Your task to perform on an android device: Do I have any events today? Image 0: 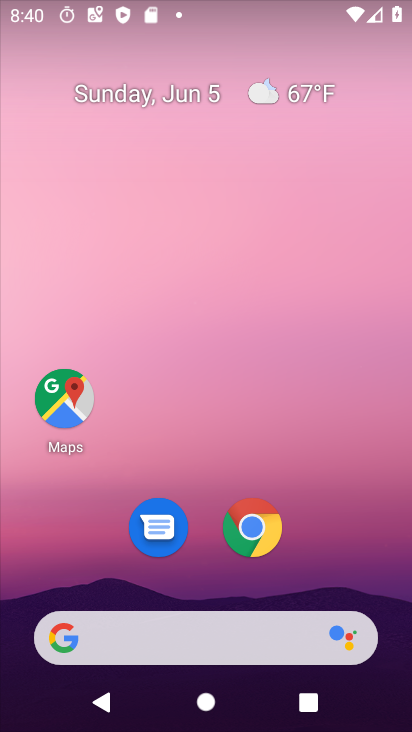
Step 0: drag from (231, 728) to (188, 157)
Your task to perform on an android device: Do I have any events today? Image 1: 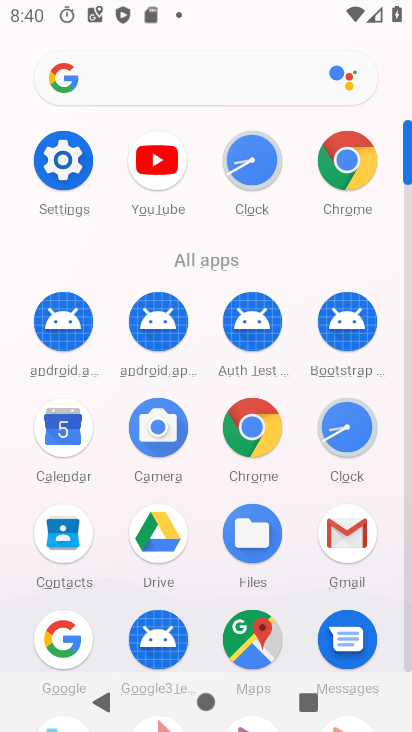
Step 1: click (54, 429)
Your task to perform on an android device: Do I have any events today? Image 2: 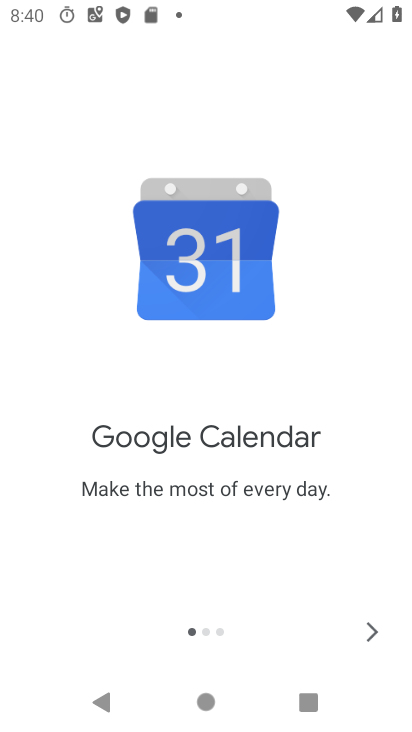
Step 2: click (377, 627)
Your task to perform on an android device: Do I have any events today? Image 3: 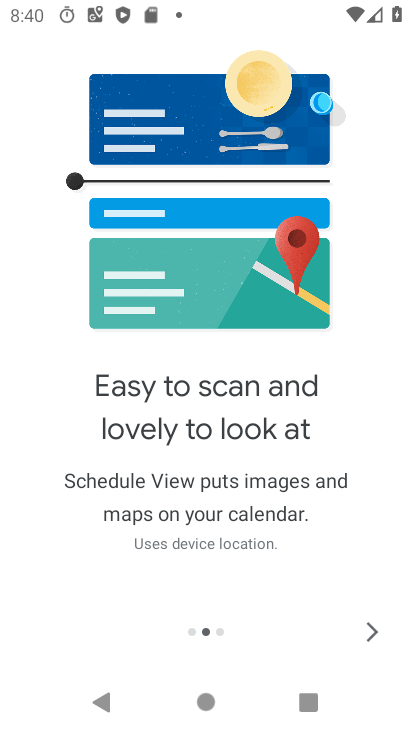
Step 3: click (374, 632)
Your task to perform on an android device: Do I have any events today? Image 4: 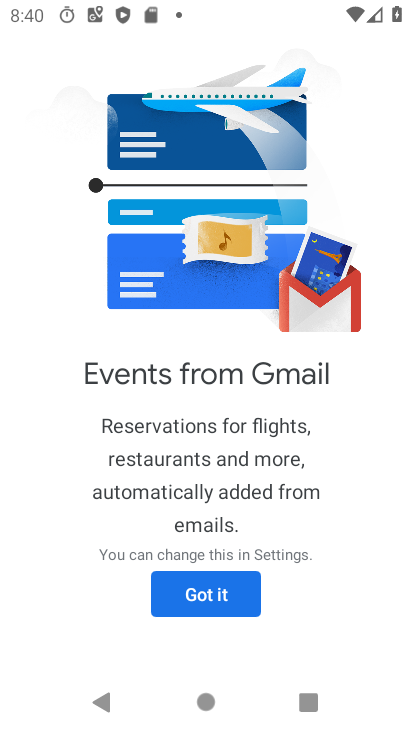
Step 4: click (220, 594)
Your task to perform on an android device: Do I have any events today? Image 5: 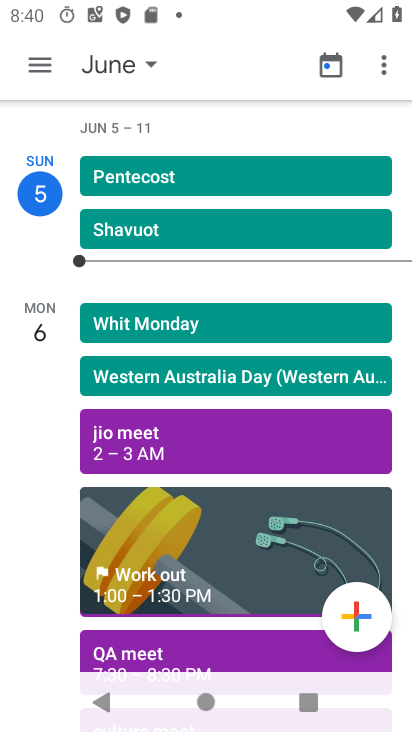
Step 5: click (42, 52)
Your task to perform on an android device: Do I have any events today? Image 6: 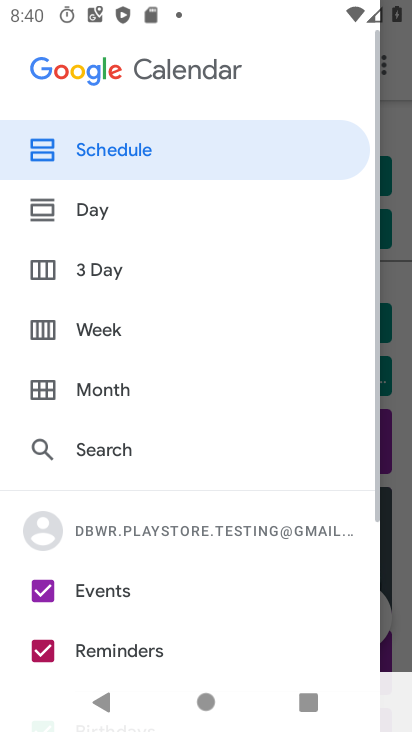
Step 6: drag from (140, 617) to (140, 356)
Your task to perform on an android device: Do I have any events today? Image 7: 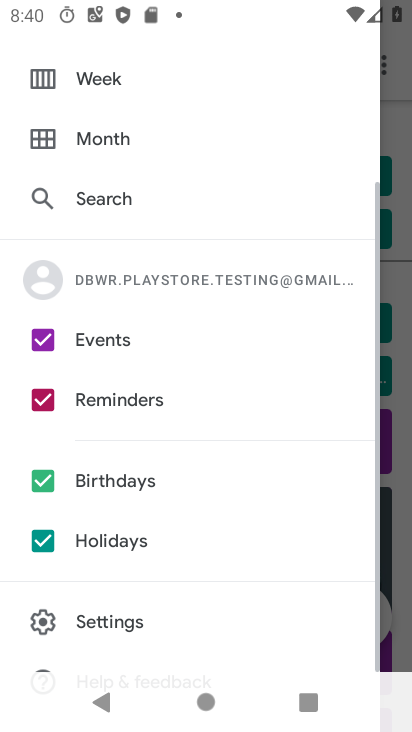
Step 7: click (44, 535)
Your task to perform on an android device: Do I have any events today? Image 8: 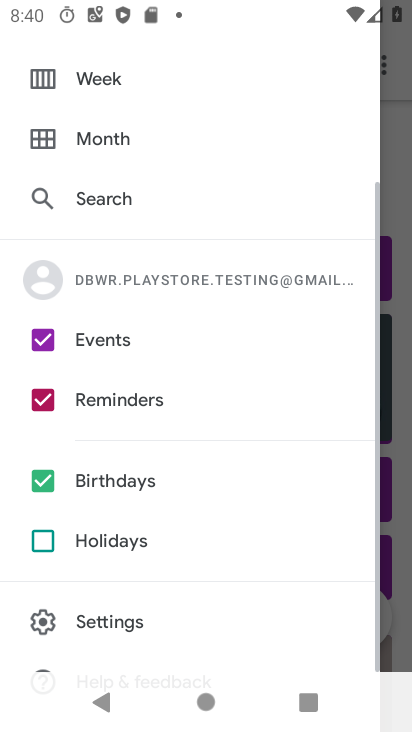
Step 8: click (44, 470)
Your task to perform on an android device: Do I have any events today? Image 9: 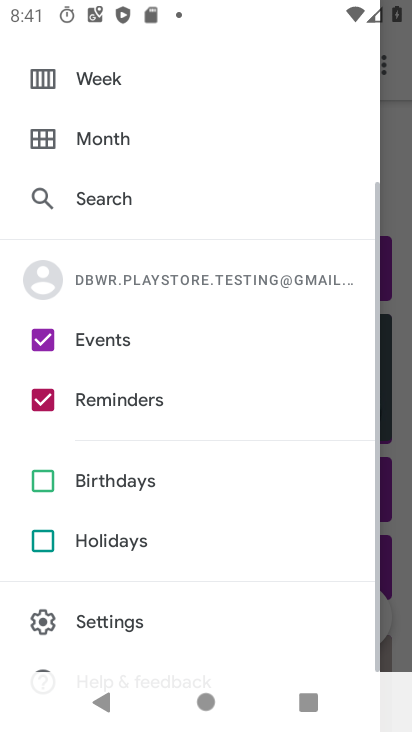
Step 9: click (45, 398)
Your task to perform on an android device: Do I have any events today? Image 10: 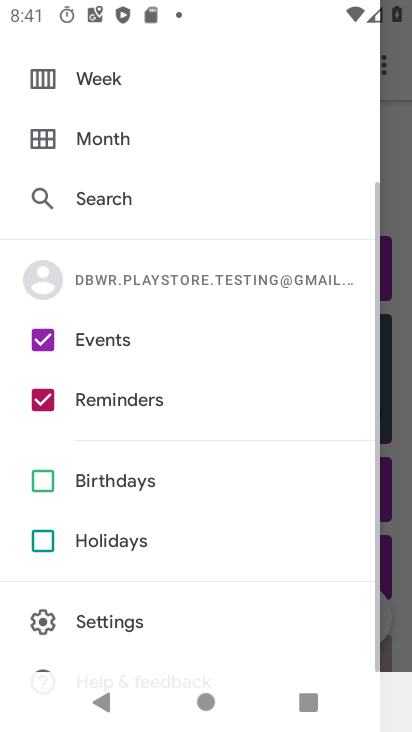
Step 10: click (46, 401)
Your task to perform on an android device: Do I have any events today? Image 11: 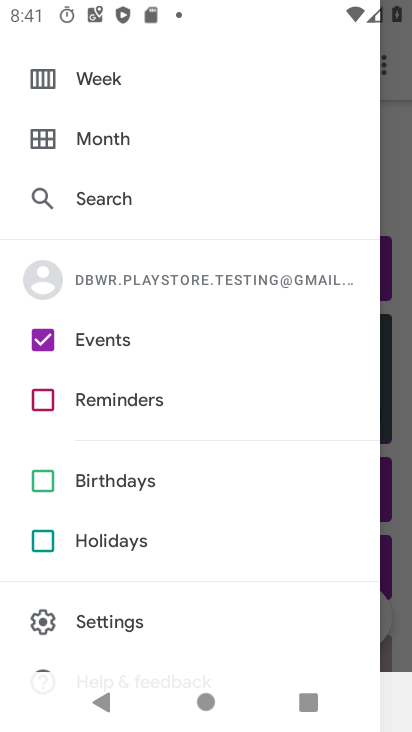
Step 11: drag from (242, 112) to (238, 546)
Your task to perform on an android device: Do I have any events today? Image 12: 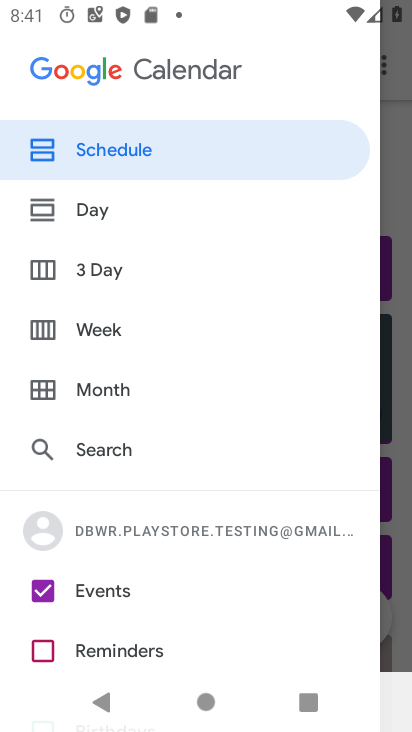
Step 12: click (107, 151)
Your task to perform on an android device: Do I have any events today? Image 13: 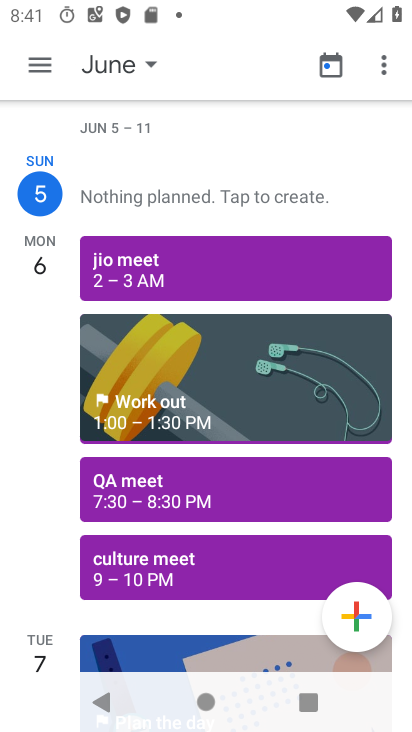
Step 13: click (148, 62)
Your task to perform on an android device: Do I have any events today? Image 14: 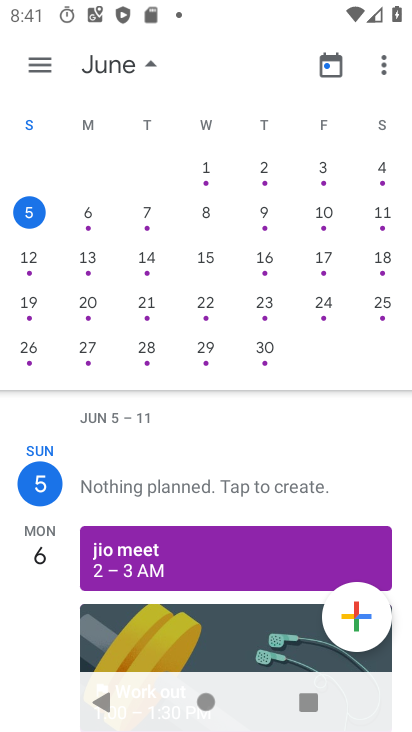
Step 14: click (31, 210)
Your task to perform on an android device: Do I have any events today? Image 15: 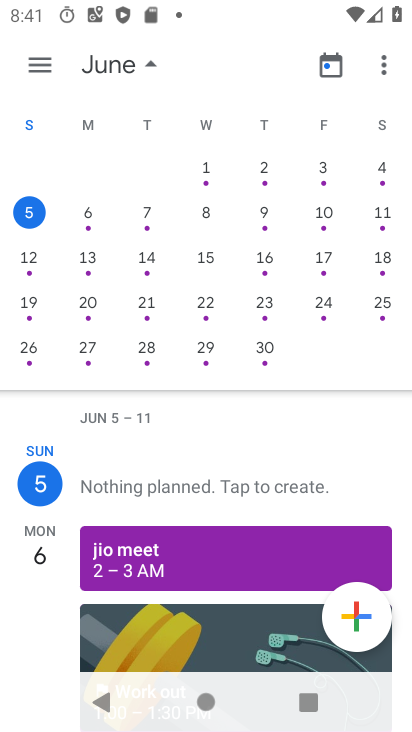
Step 15: click (31, 210)
Your task to perform on an android device: Do I have any events today? Image 16: 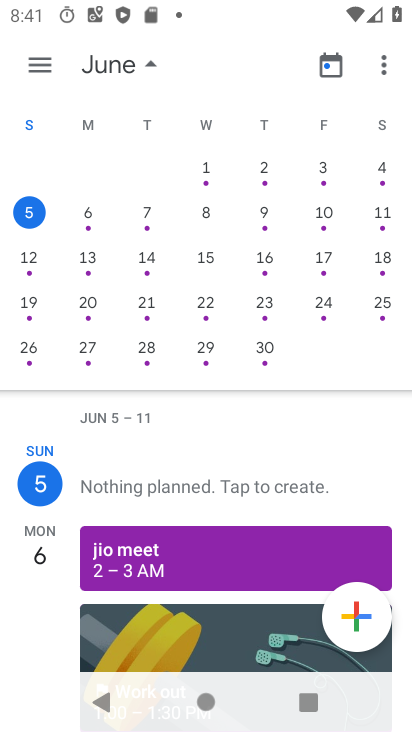
Step 16: click (37, 210)
Your task to perform on an android device: Do I have any events today? Image 17: 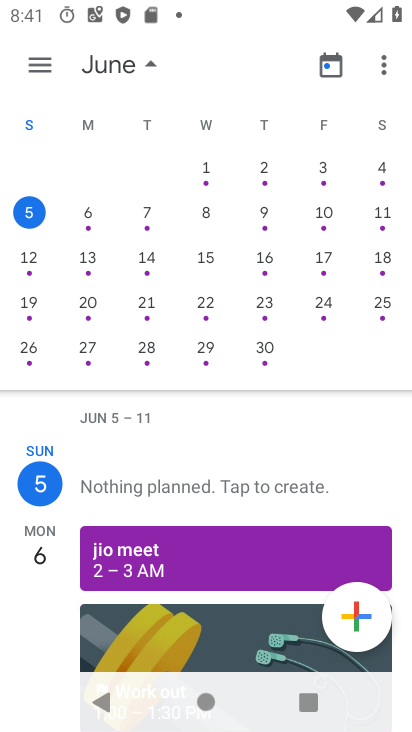
Step 17: click (37, 210)
Your task to perform on an android device: Do I have any events today? Image 18: 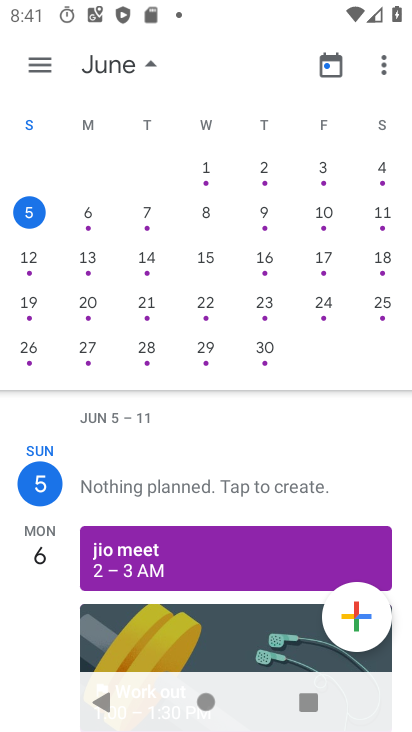
Step 18: click (152, 64)
Your task to perform on an android device: Do I have any events today? Image 19: 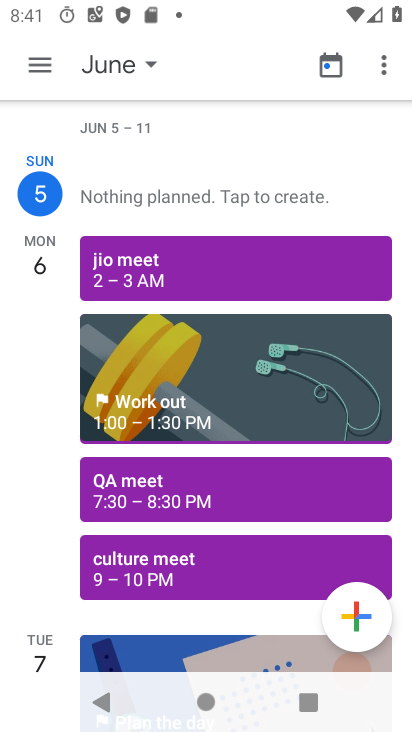
Step 19: task complete